Your task to perform on an android device: toggle sleep mode Image 0: 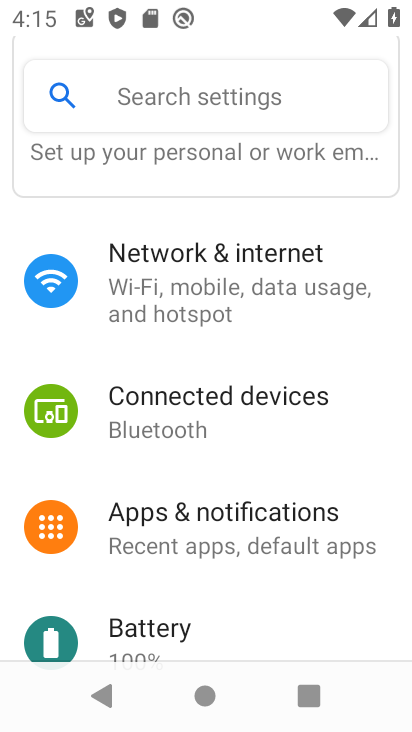
Step 0: press home button
Your task to perform on an android device: toggle sleep mode Image 1: 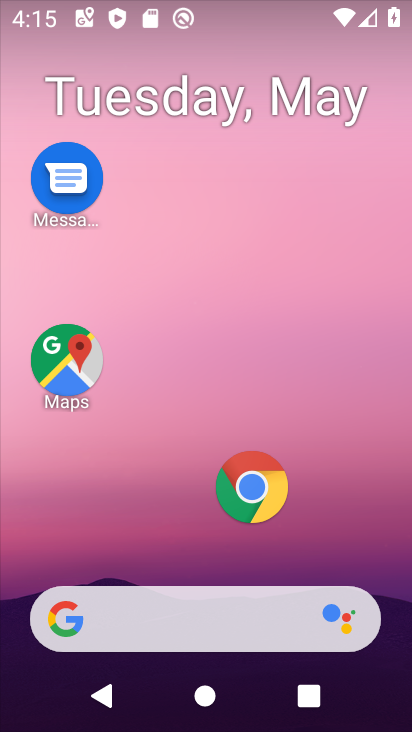
Step 1: drag from (168, 514) to (214, 7)
Your task to perform on an android device: toggle sleep mode Image 2: 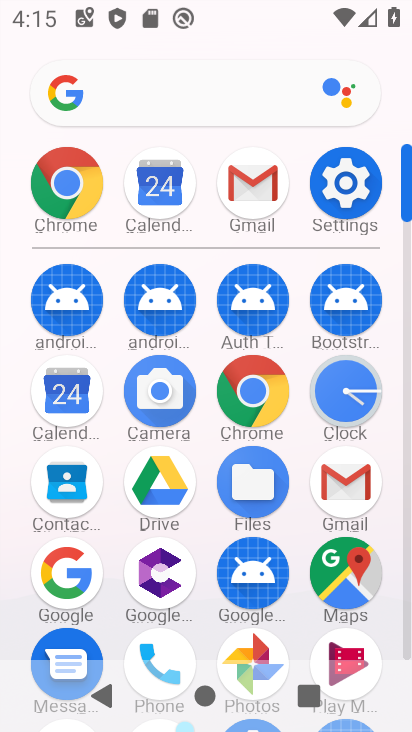
Step 2: click (342, 192)
Your task to perform on an android device: toggle sleep mode Image 3: 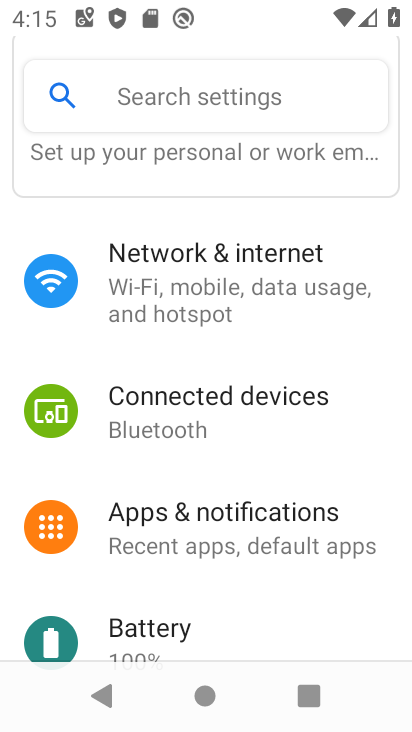
Step 3: task complete